Your task to perform on an android device: turn on javascript in the chrome app Image 0: 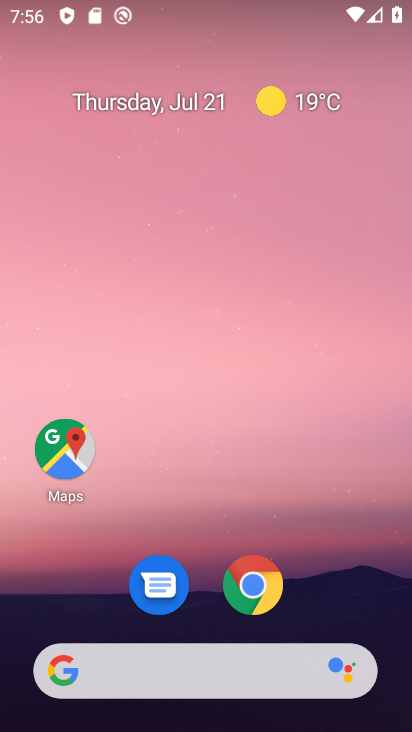
Step 0: click (260, 584)
Your task to perform on an android device: turn on javascript in the chrome app Image 1: 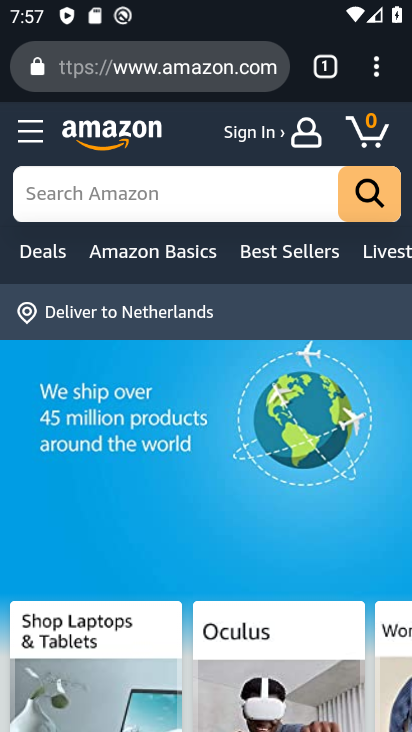
Step 1: click (380, 68)
Your task to perform on an android device: turn on javascript in the chrome app Image 2: 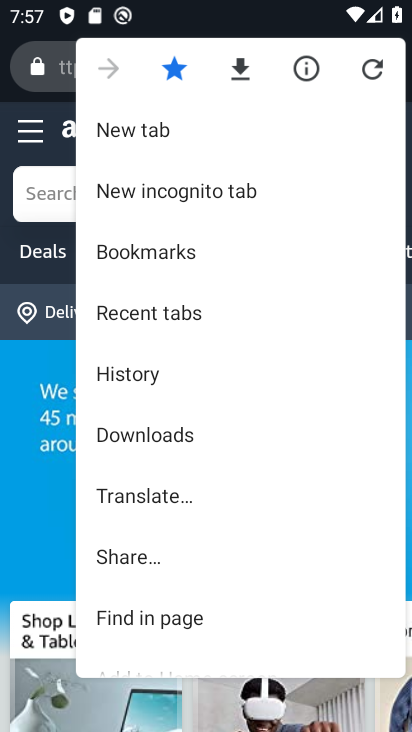
Step 2: drag from (232, 573) to (204, 216)
Your task to perform on an android device: turn on javascript in the chrome app Image 3: 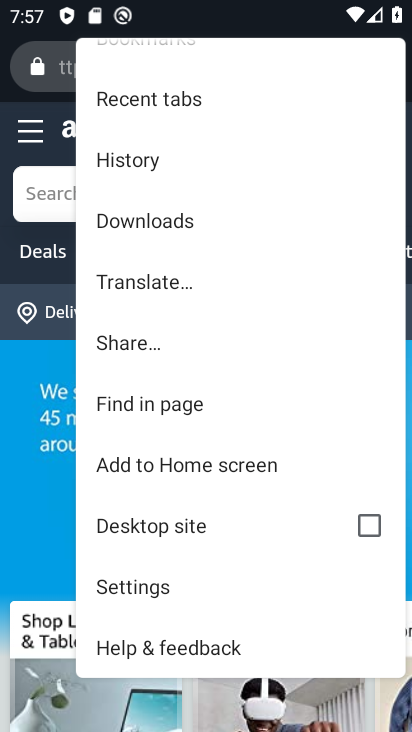
Step 3: click (158, 579)
Your task to perform on an android device: turn on javascript in the chrome app Image 4: 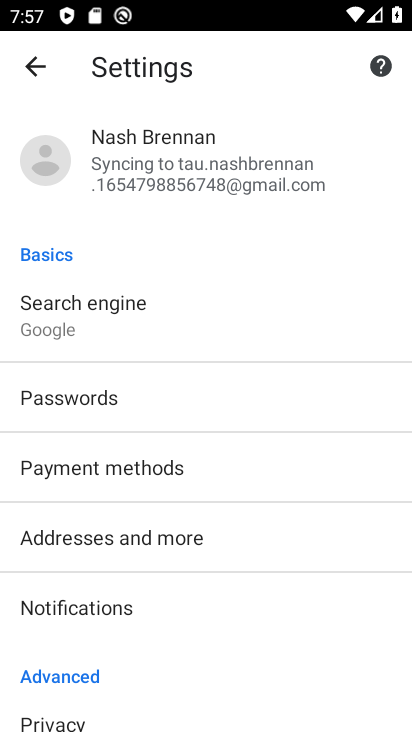
Step 4: drag from (230, 623) to (230, 255)
Your task to perform on an android device: turn on javascript in the chrome app Image 5: 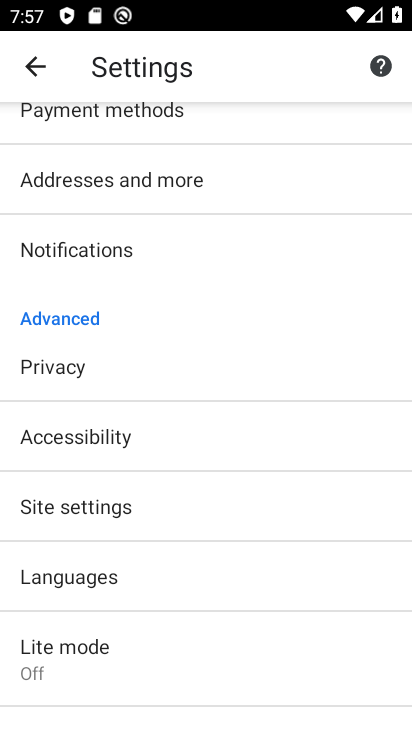
Step 5: click (123, 502)
Your task to perform on an android device: turn on javascript in the chrome app Image 6: 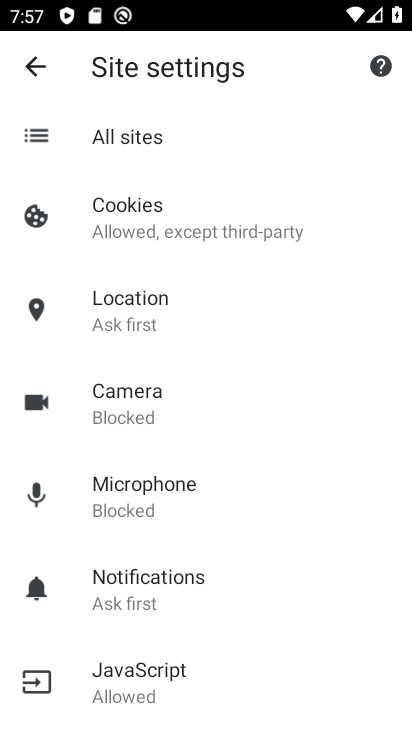
Step 6: click (163, 679)
Your task to perform on an android device: turn on javascript in the chrome app Image 7: 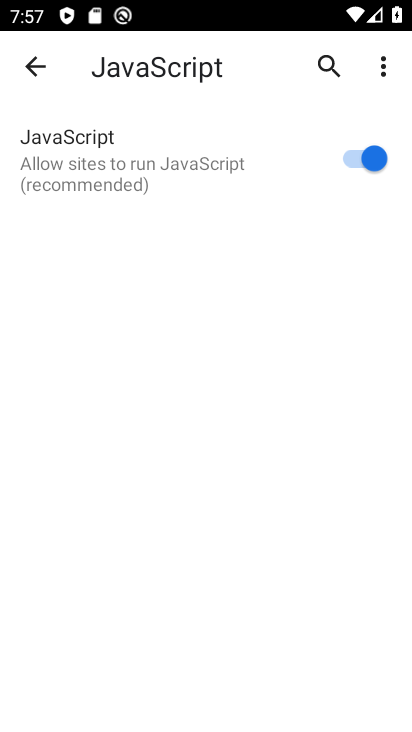
Step 7: task complete